Your task to perform on an android device: Go to location settings Image 0: 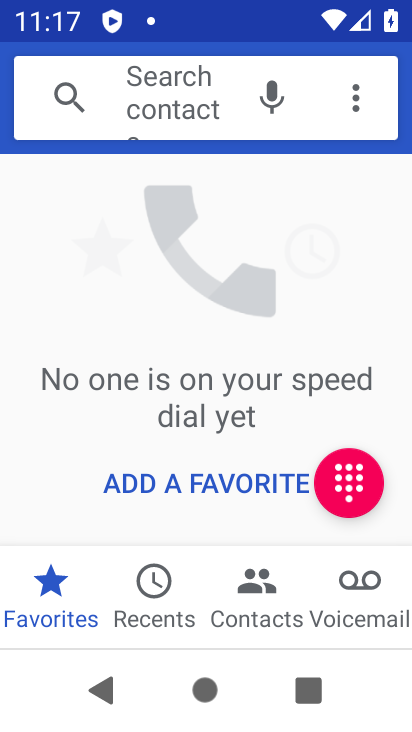
Step 0: press home button
Your task to perform on an android device: Go to location settings Image 1: 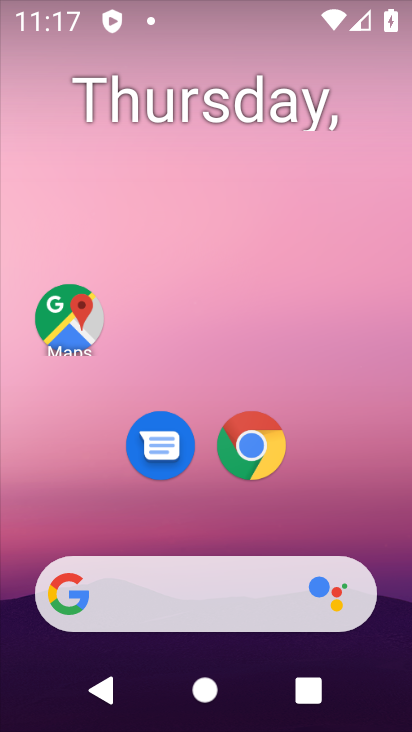
Step 1: drag from (308, 465) to (344, 18)
Your task to perform on an android device: Go to location settings Image 2: 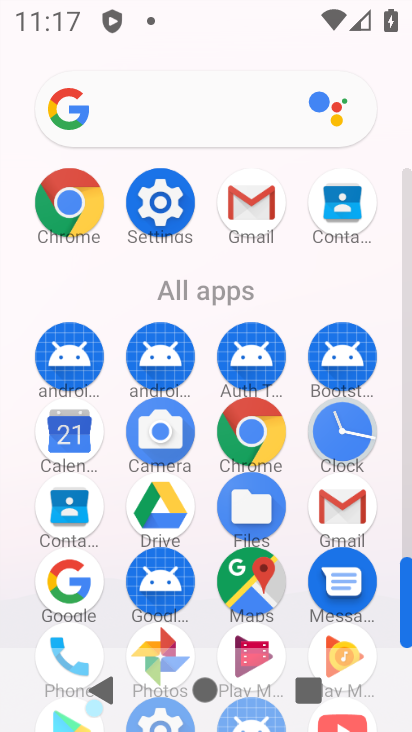
Step 2: click (145, 210)
Your task to perform on an android device: Go to location settings Image 3: 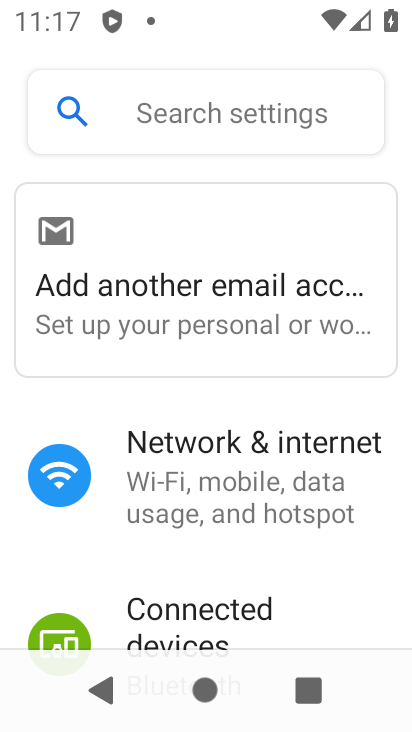
Step 3: drag from (339, 549) to (320, 187)
Your task to perform on an android device: Go to location settings Image 4: 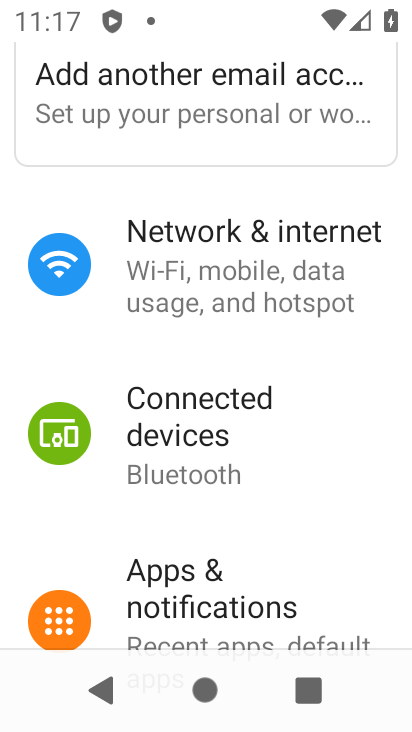
Step 4: drag from (259, 535) to (230, 175)
Your task to perform on an android device: Go to location settings Image 5: 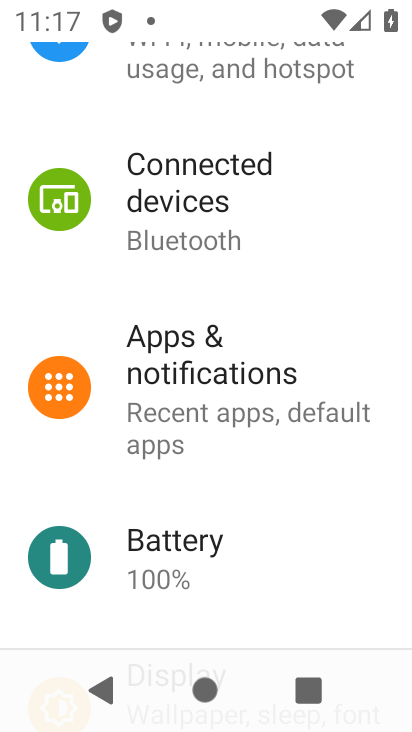
Step 5: drag from (266, 547) to (287, 138)
Your task to perform on an android device: Go to location settings Image 6: 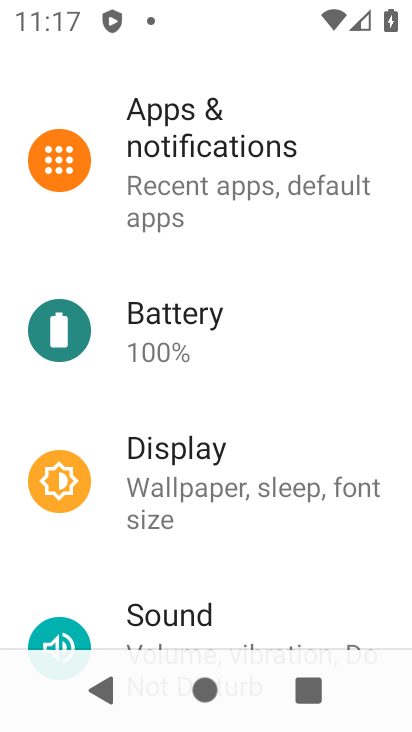
Step 6: drag from (214, 559) to (205, 69)
Your task to perform on an android device: Go to location settings Image 7: 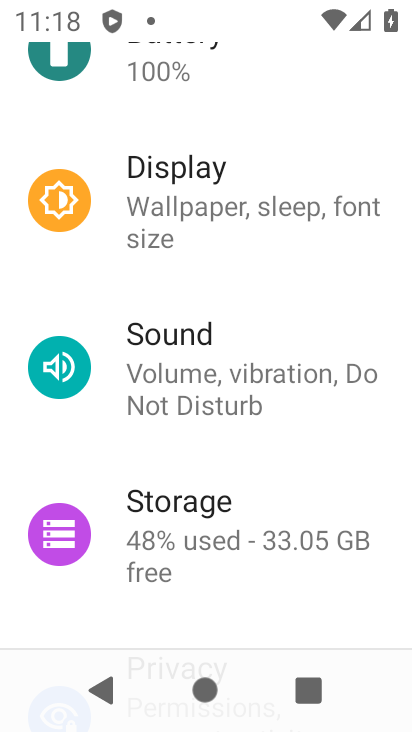
Step 7: drag from (179, 471) to (209, 93)
Your task to perform on an android device: Go to location settings Image 8: 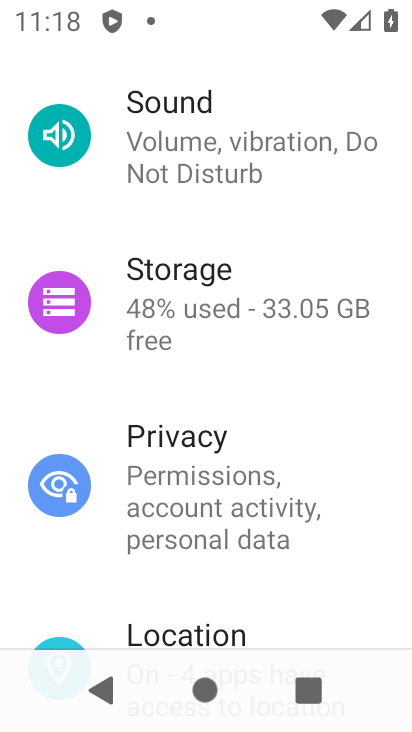
Step 8: drag from (261, 481) to (236, 213)
Your task to perform on an android device: Go to location settings Image 9: 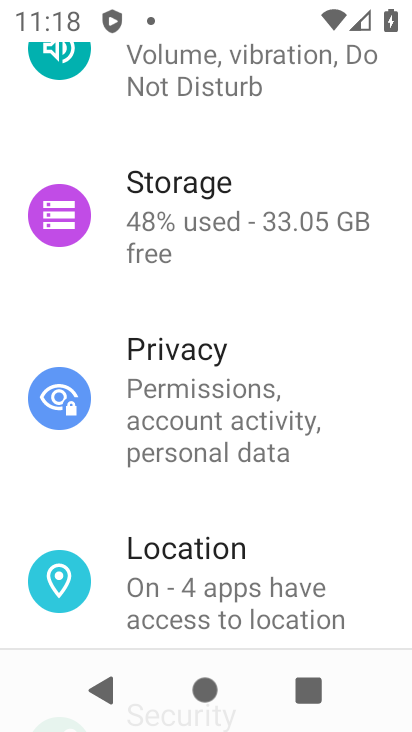
Step 9: drag from (250, 564) to (260, 208)
Your task to perform on an android device: Go to location settings Image 10: 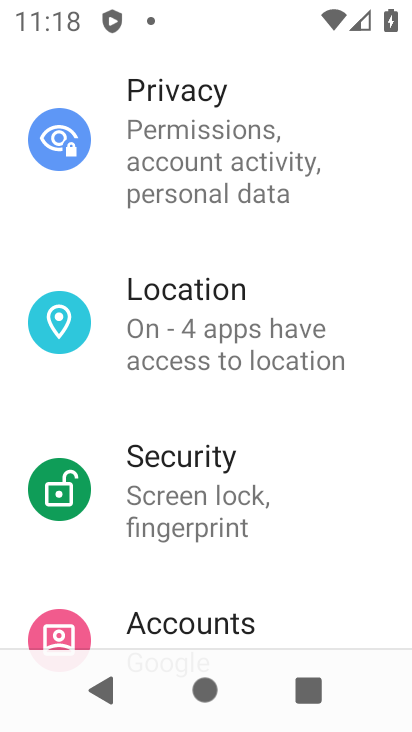
Step 10: click (211, 328)
Your task to perform on an android device: Go to location settings Image 11: 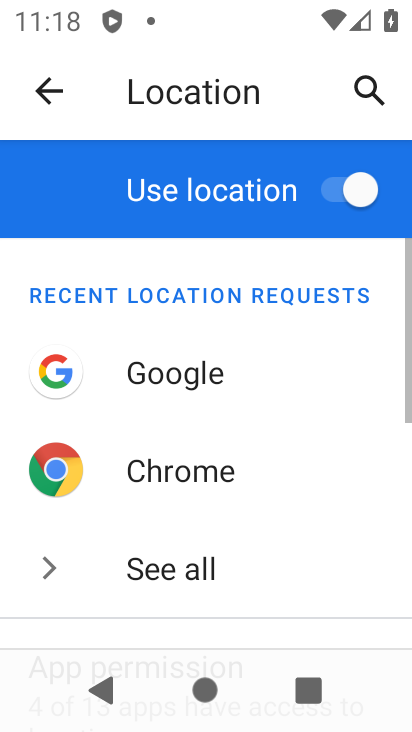
Step 11: task complete